Your task to perform on an android device: Open Amazon Image 0: 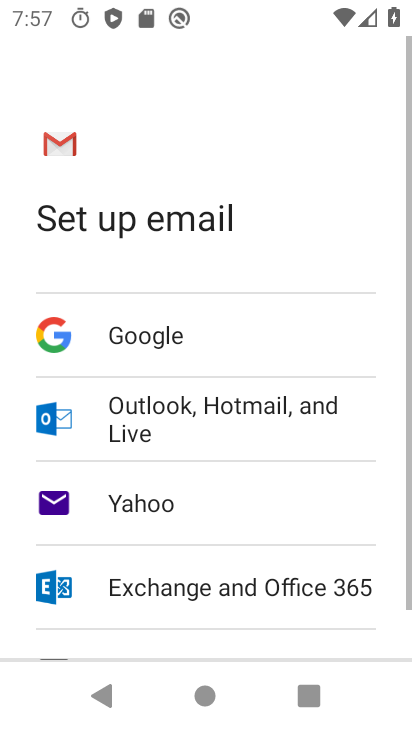
Step 0: press home button
Your task to perform on an android device: Open Amazon Image 1: 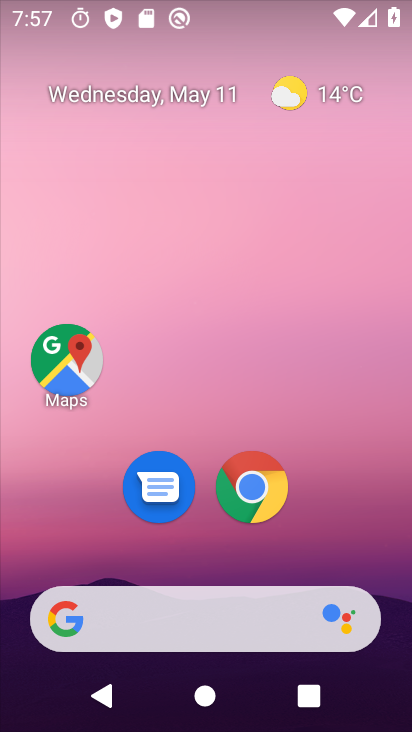
Step 1: click (247, 490)
Your task to perform on an android device: Open Amazon Image 2: 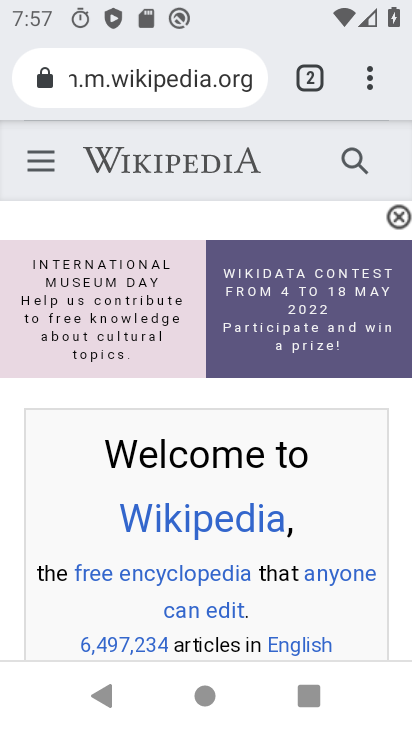
Step 2: click (371, 90)
Your task to perform on an android device: Open Amazon Image 3: 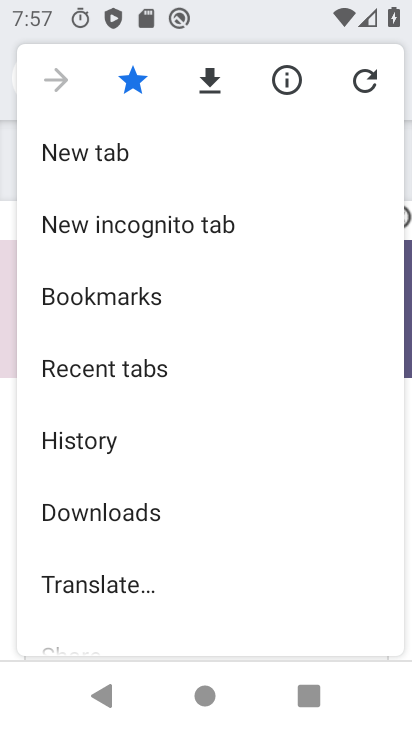
Step 3: click (72, 155)
Your task to perform on an android device: Open Amazon Image 4: 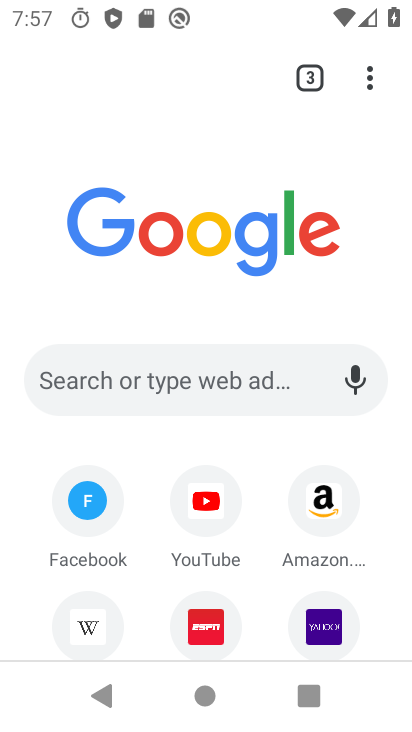
Step 4: click (170, 376)
Your task to perform on an android device: Open Amazon Image 5: 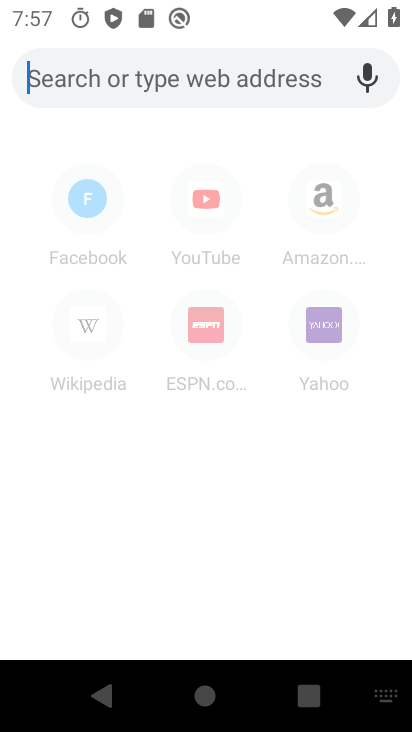
Step 5: type "Amazon"
Your task to perform on an android device: Open Amazon Image 6: 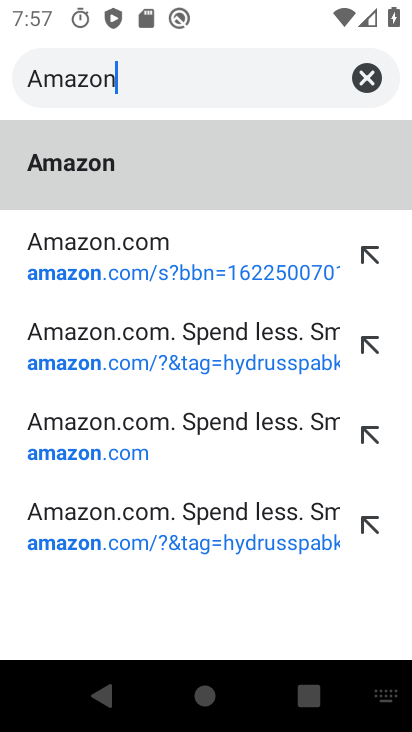
Step 6: click (68, 150)
Your task to perform on an android device: Open Amazon Image 7: 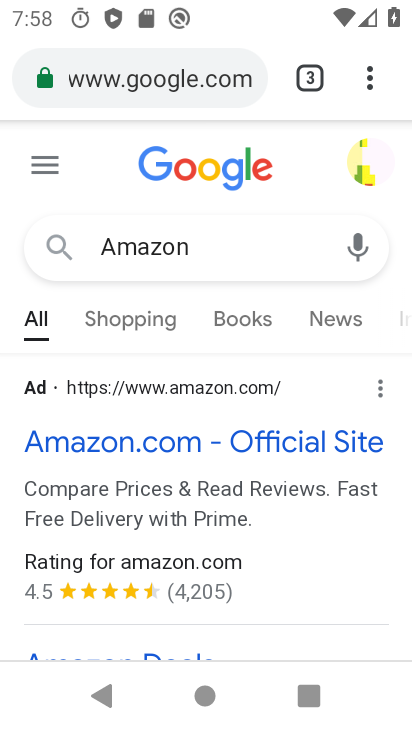
Step 7: click (278, 441)
Your task to perform on an android device: Open Amazon Image 8: 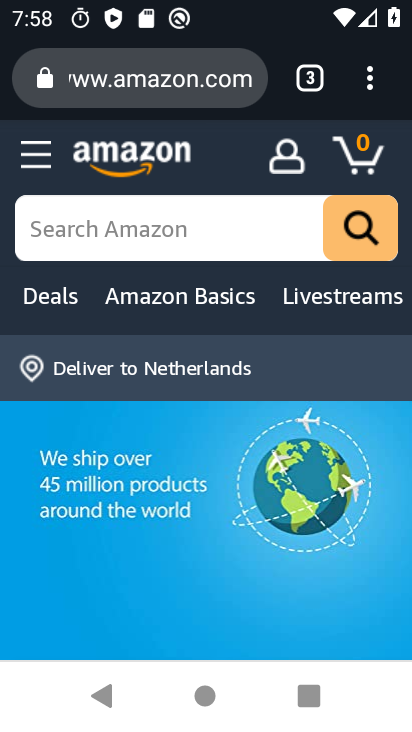
Step 8: task complete